Your task to perform on an android device: Go to network settings Image 0: 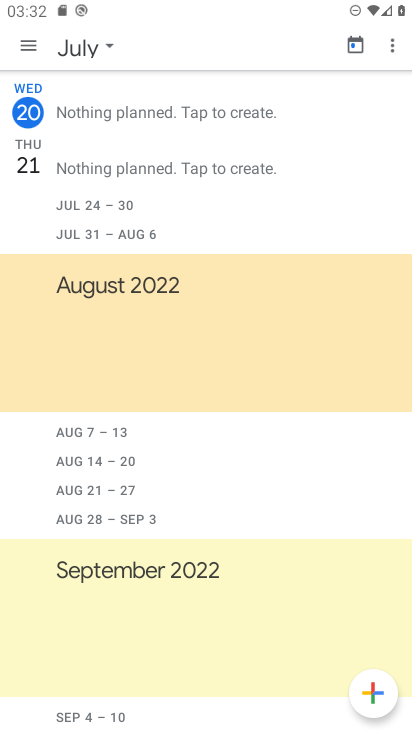
Step 0: press home button
Your task to perform on an android device: Go to network settings Image 1: 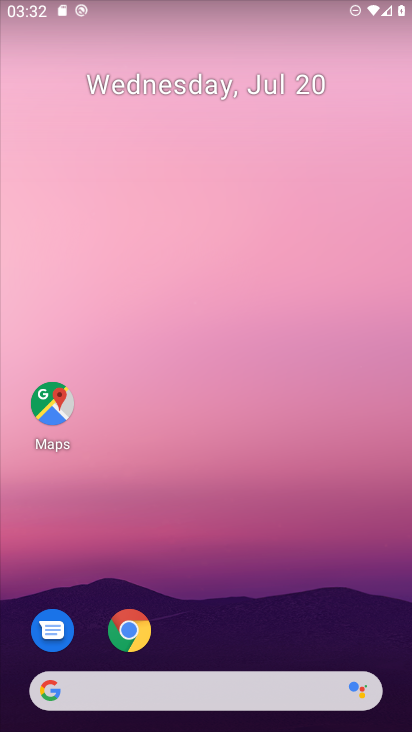
Step 1: drag from (346, 609) to (365, 125)
Your task to perform on an android device: Go to network settings Image 2: 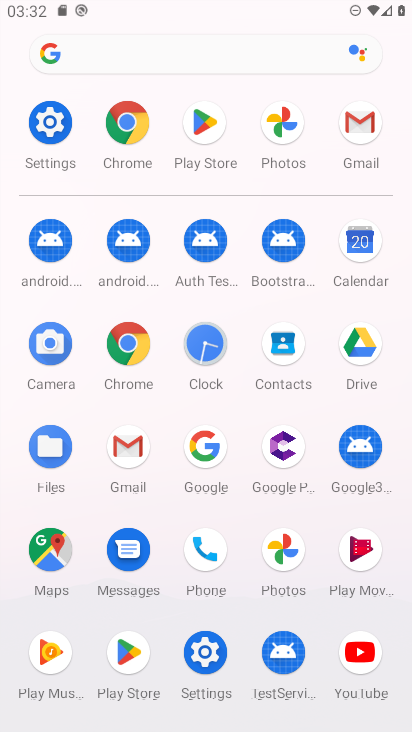
Step 2: click (55, 128)
Your task to perform on an android device: Go to network settings Image 3: 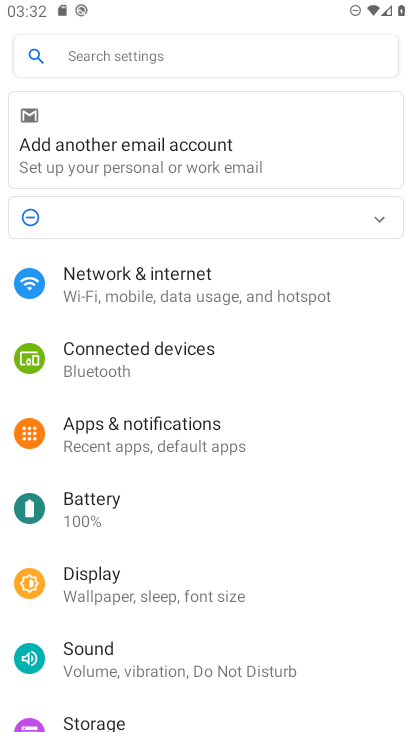
Step 3: click (291, 284)
Your task to perform on an android device: Go to network settings Image 4: 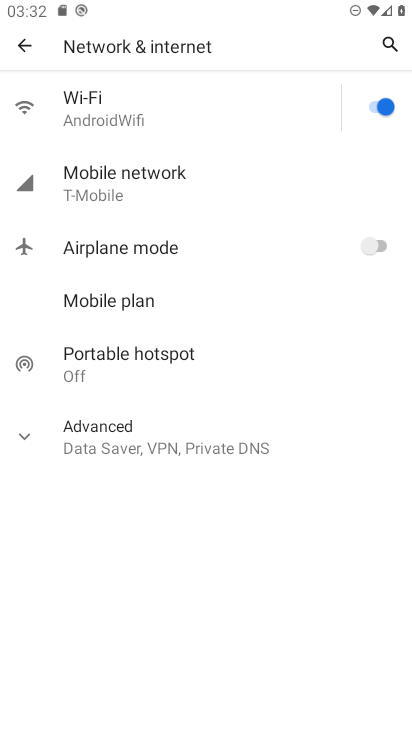
Step 4: task complete